Your task to perform on an android device: Search for a sofa on article.com Image 0: 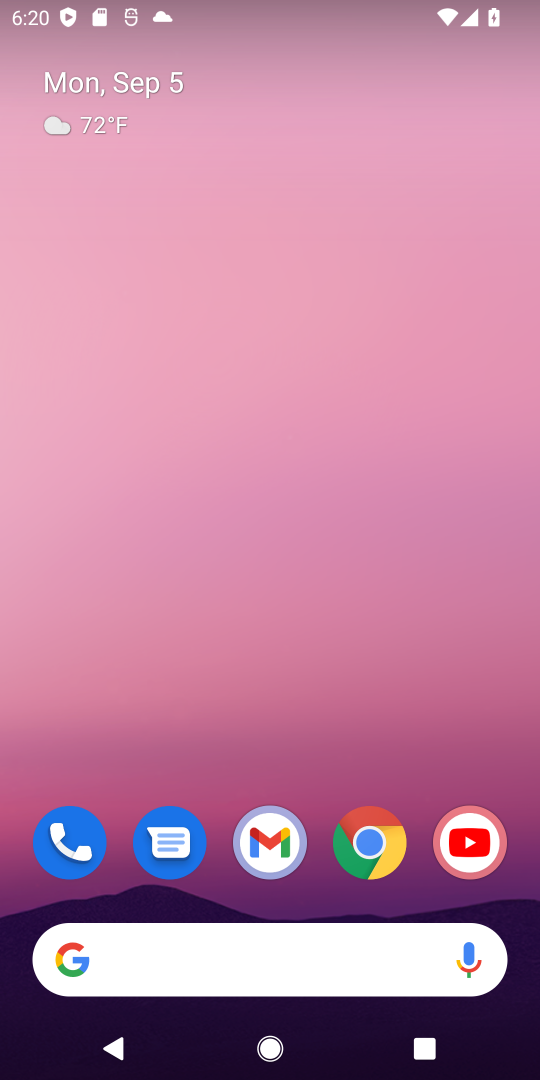
Step 0: click (372, 845)
Your task to perform on an android device: Search for a sofa on article.com Image 1: 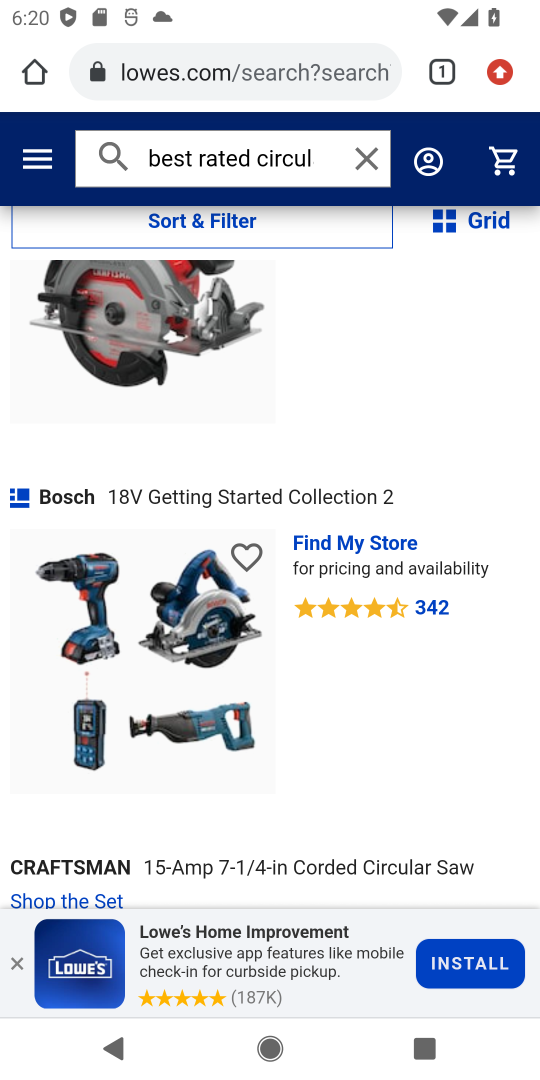
Step 1: click (274, 65)
Your task to perform on an android device: Search for a sofa on article.com Image 2: 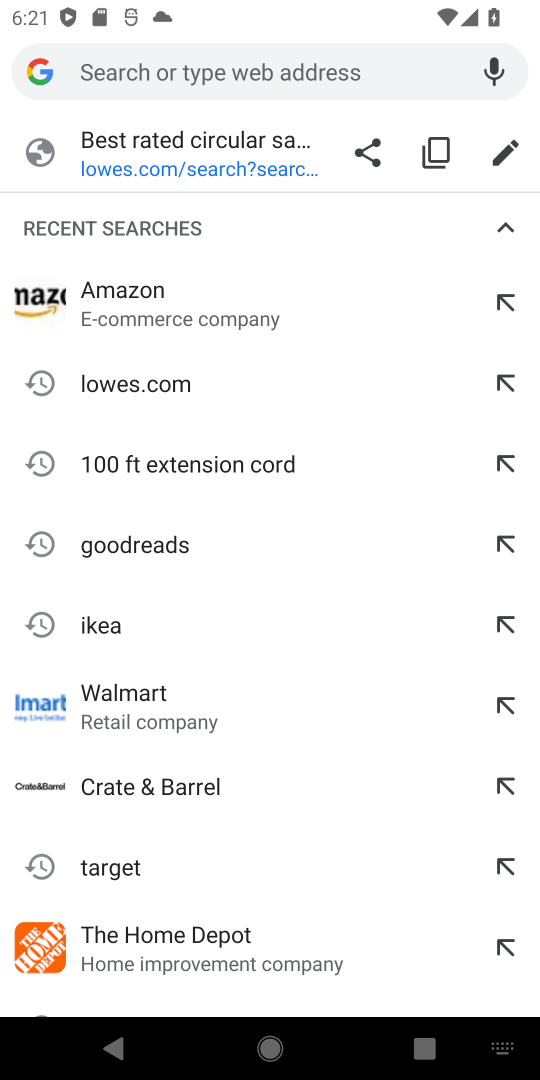
Step 2: type "article.com"
Your task to perform on an android device: Search for a sofa on article.com Image 3: 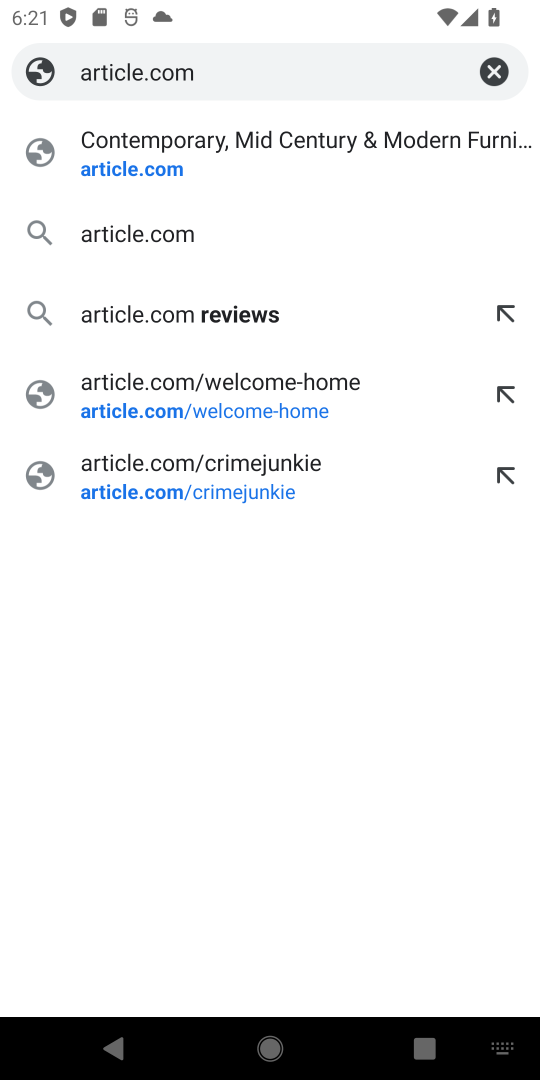
Step 3: click (188, 242)
Your task to perform on an android device: Search for a sofa on article.com Image 4: 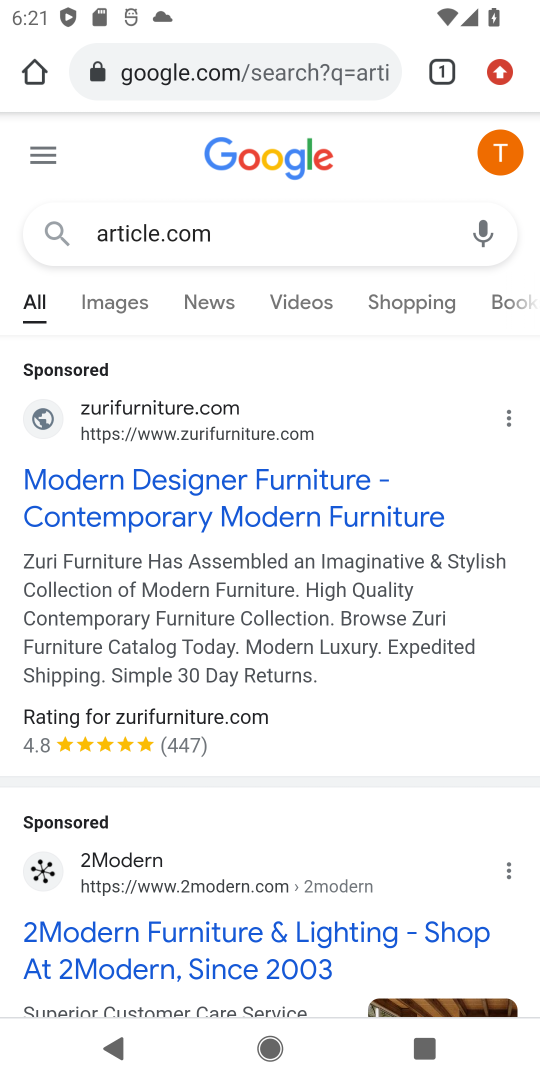
Step 4: drag from (246, 820) to (357, 449)
Your task to perform on an android device: Search for a sofa on article.com Image 5: 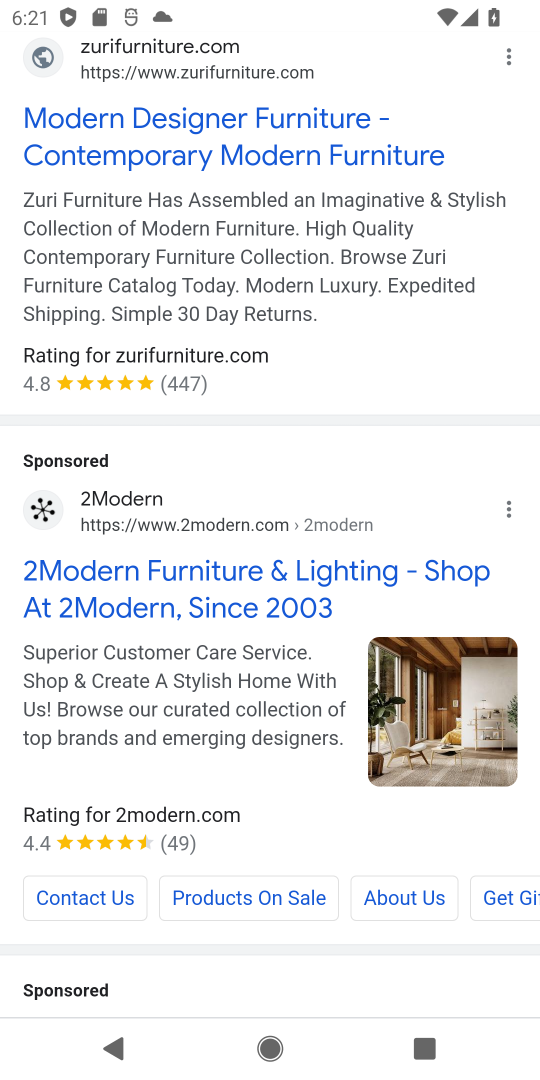
Step 5: drag from (201, 963) to (273, 572)
Your task to perform on an android device: Search for a sofa on article.com Image 6: 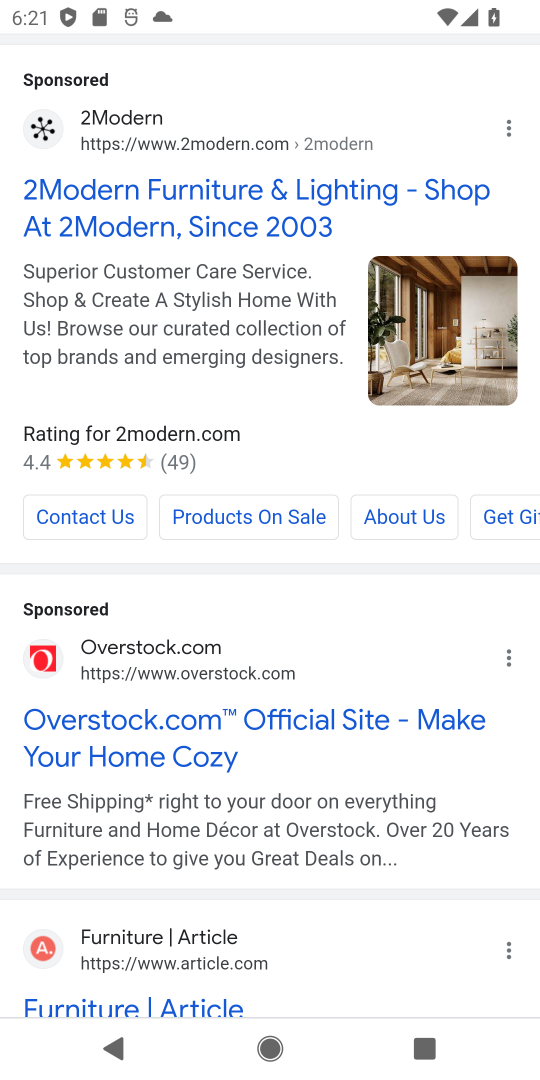
Step 6: drag from (327, 900) to (422, 744)
Your task to perform on an android device: Search for a sofa on article.com Image 7: 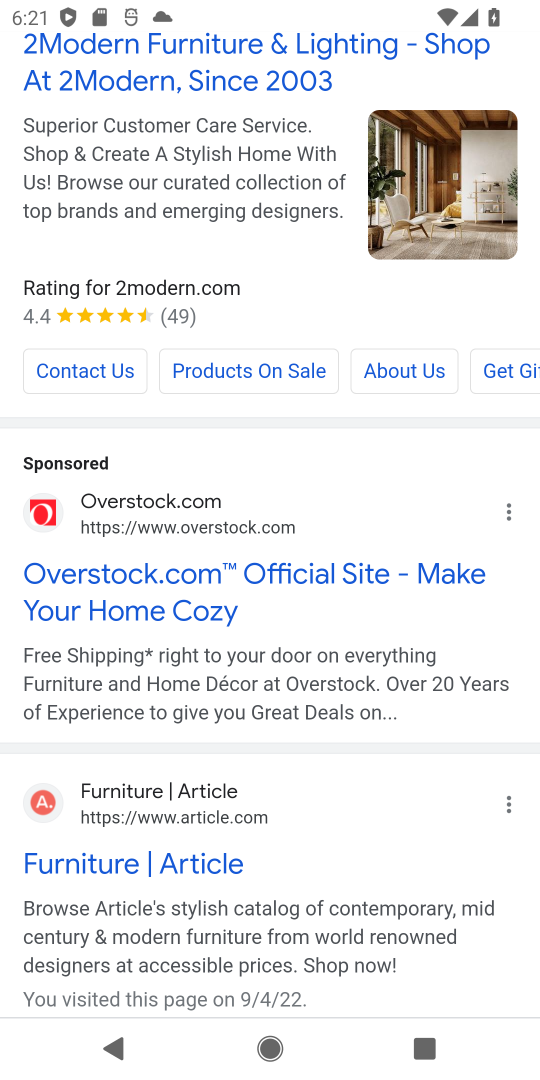
Step 7: click (212, 831)
Your task to perform on an android device: Search for a sofa on article.com Image 8: 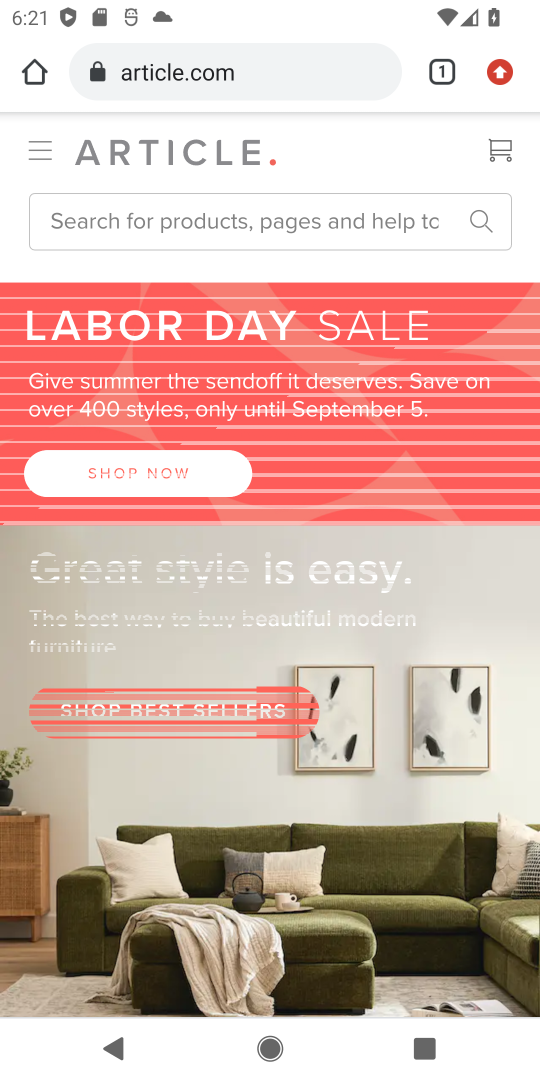
Step 8: click (250, 225)
Your task to perform on an android device: Search for a sofa on article.com Image 9: 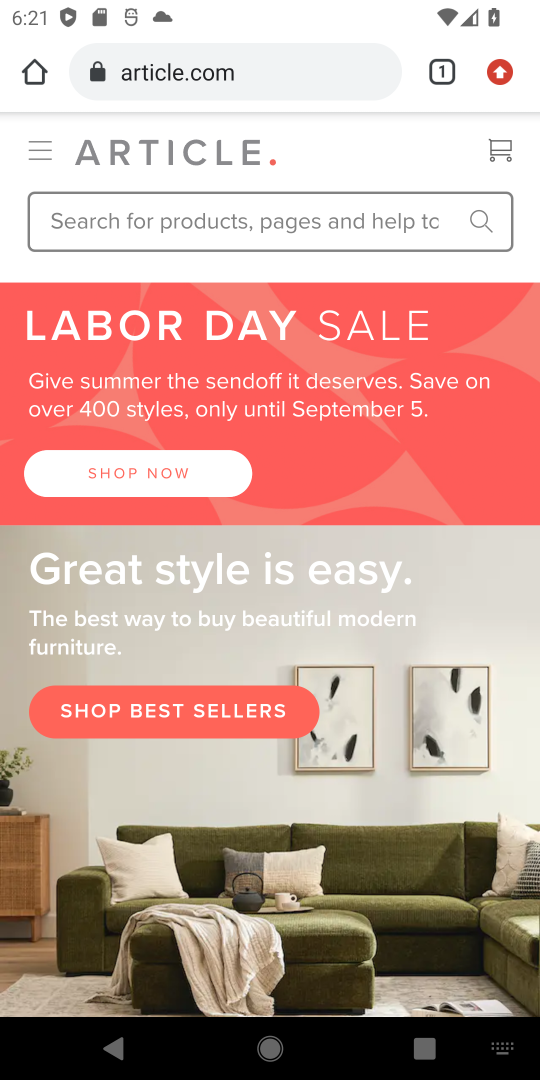
Step 9: type "sofa"
Your task to perform on an android device: Search for a sofa on article.com Image 10: 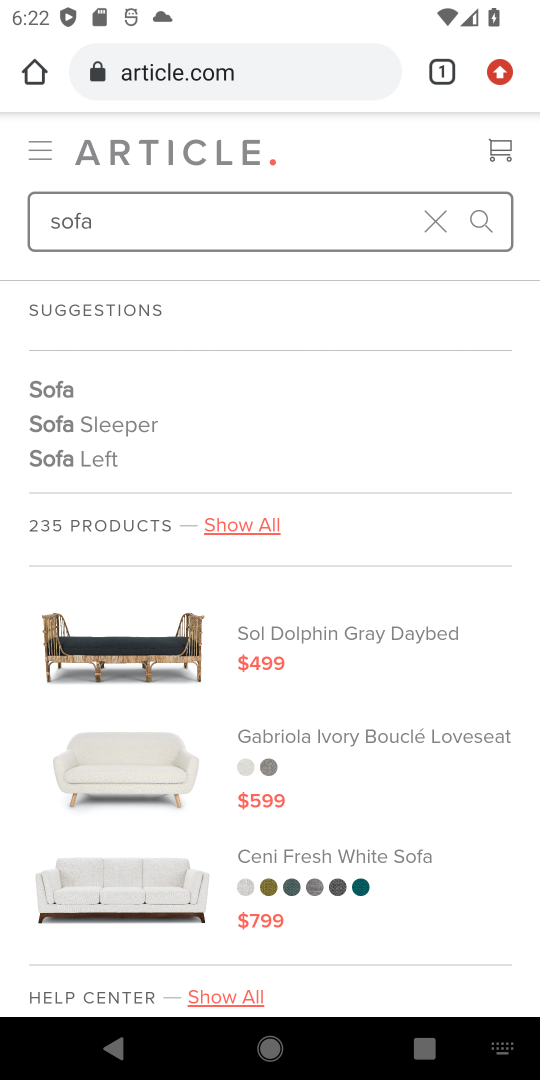
Step 10: click (472, 225)
Your task to perform on an android device: Search for a sofa on article.com Image 11: 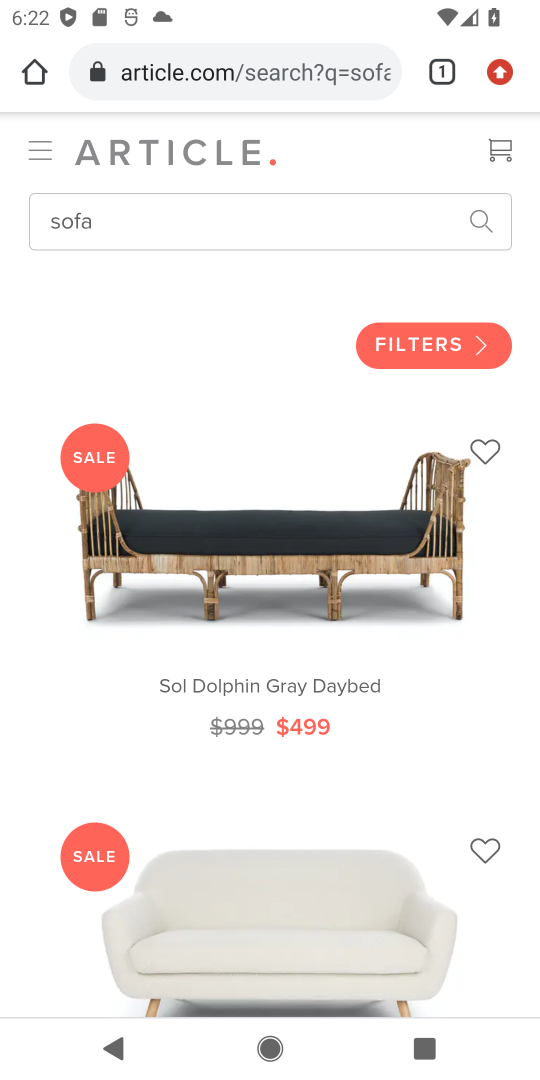
Step 11: task complete